Your task to perform on an android device: Turn on the flashlight Image 0: 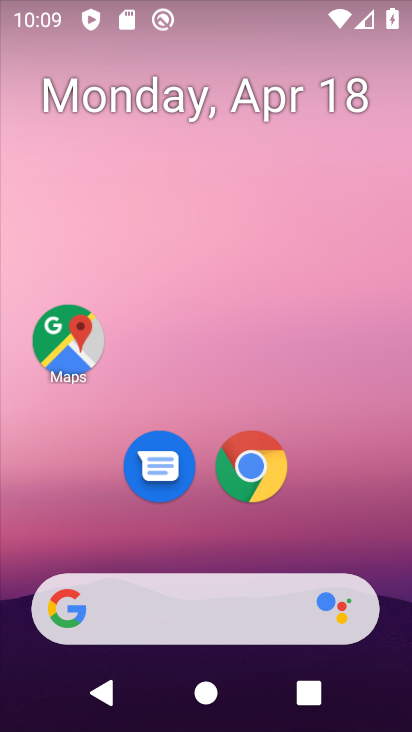
Step 0: drag from (252, 14) to (292, 362)
Your task to perform on an android device: Turn on the flashlight Image 1: 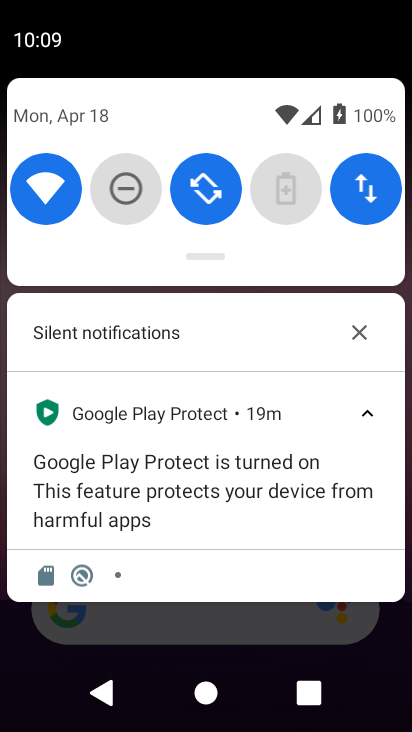
Step 1: task complete